Your task to perform on an android device: Show me recent news Image 0: 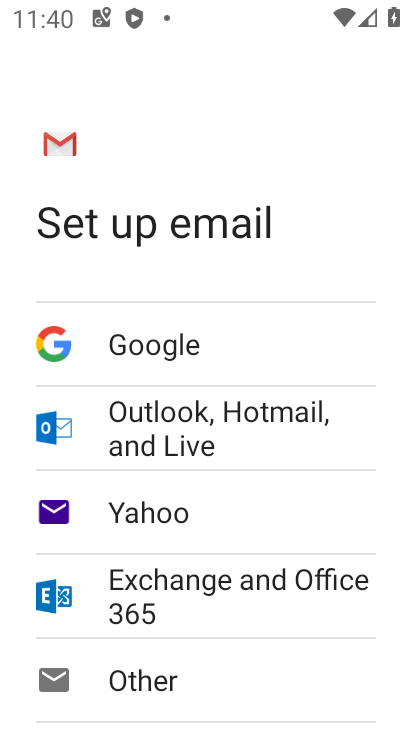
Step 0: press home button
Your task to perform on an android device: Show me recent news Image 1: 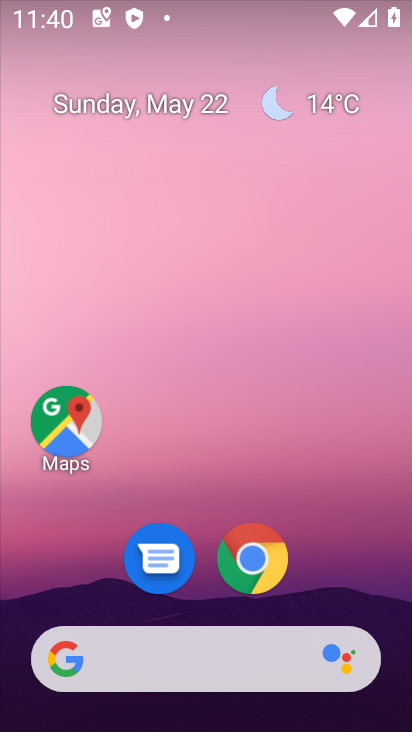
Step 1: click (130, 660)
Your task to perform on an android device: Show me recent news Image 2: 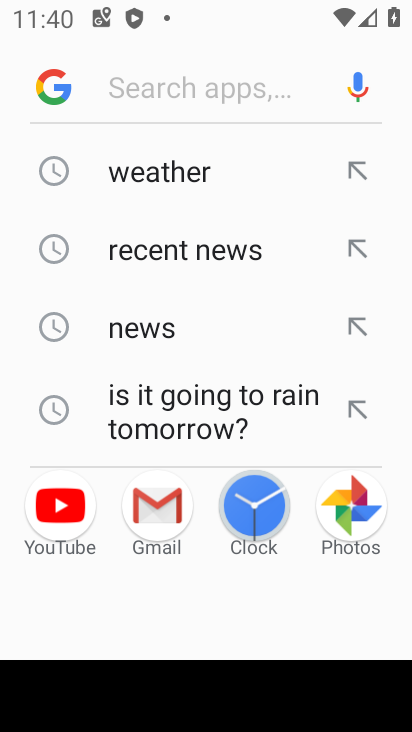
Step 2: click (167, 250)
Your task to perform on an android device: Show me recent news Image 3: 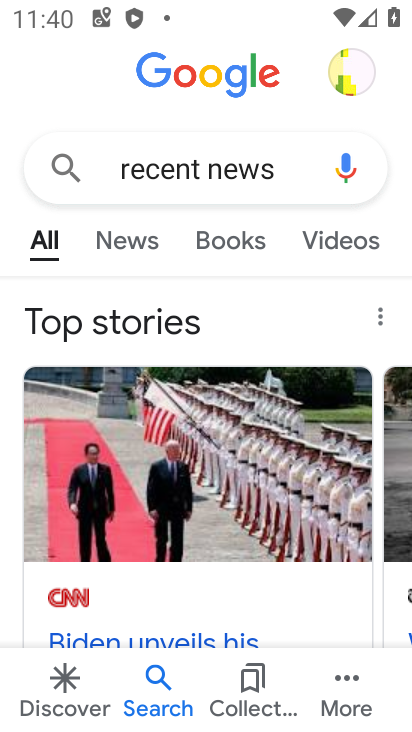
Step 3: click (141, 248)
Your task to perform on an android device: Show me recent news Image 4: 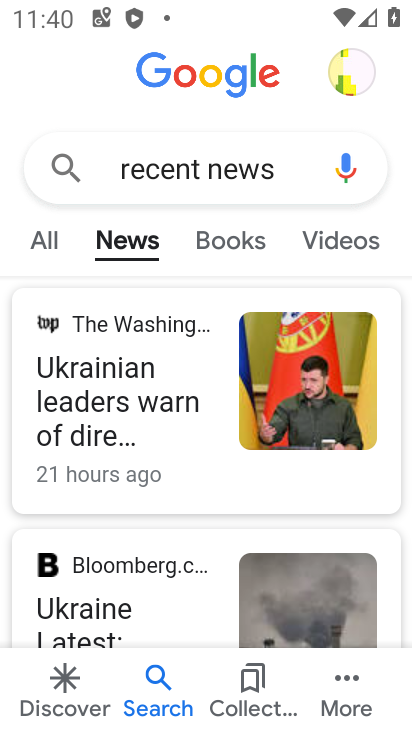
Step 4: drag from (131, 578) to (170, 137)
Your task to perform on an android device: Show me recent news Image 5: 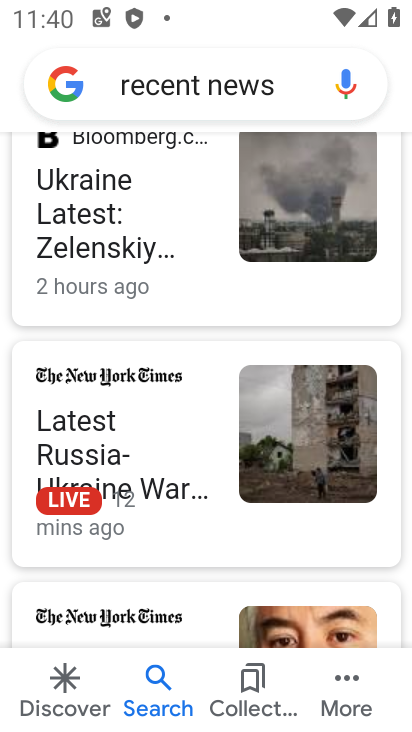
Step 5: click (127, 251)
Your task to perform on an android device: Show me recent news Image 6: 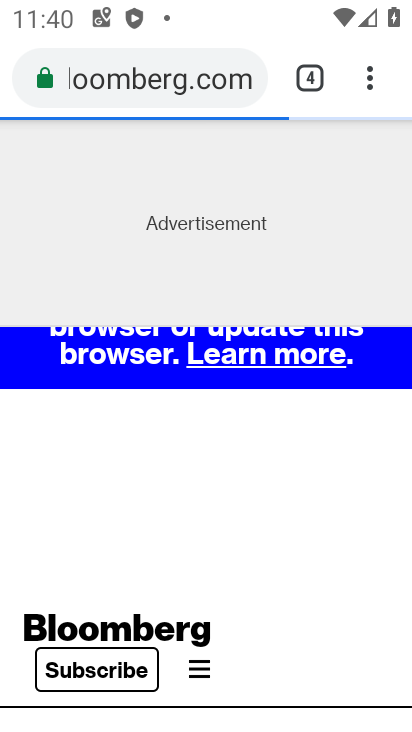
Step 6: task complete